Your task to perform on an android device: Is it going to rain this weekend? Image 0: 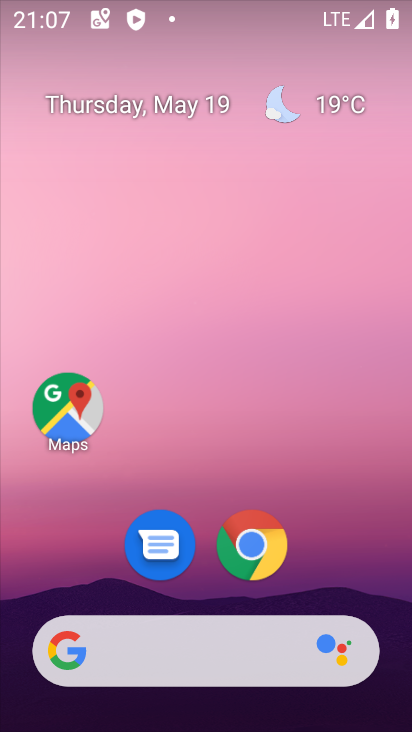
Step 0: click (225, 641)
Your task to perform on an android device: Is it going to rain this weekend? Image 1: 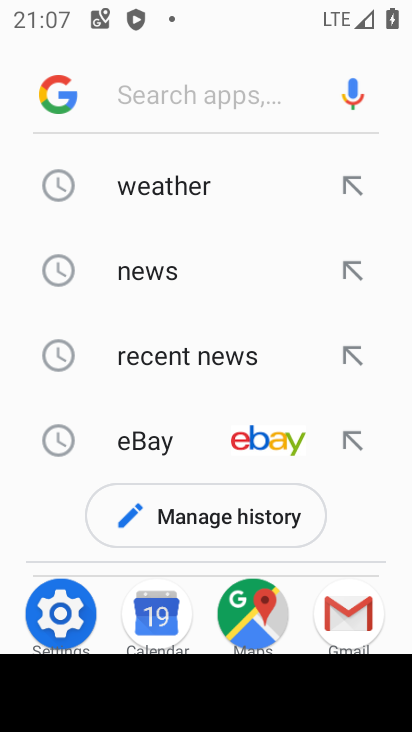
Step 1: click (199, 207)
Your task to perform on an android device: Is it going to rain this weekend? Image 2: 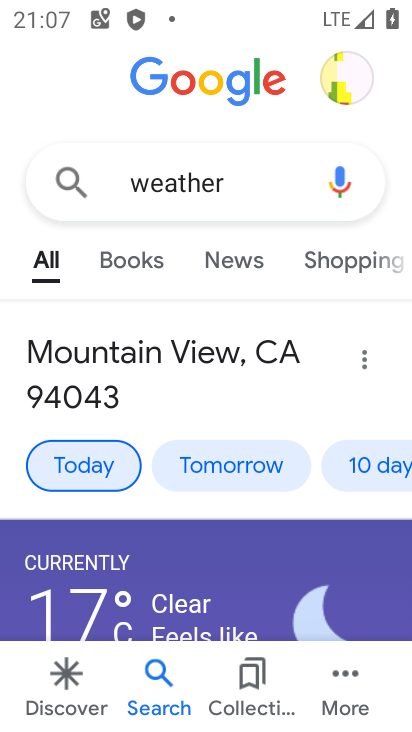
Step 2: click (374, 469)
Your task to perform on an android device: Is it going to rain this weekend? Image 3: 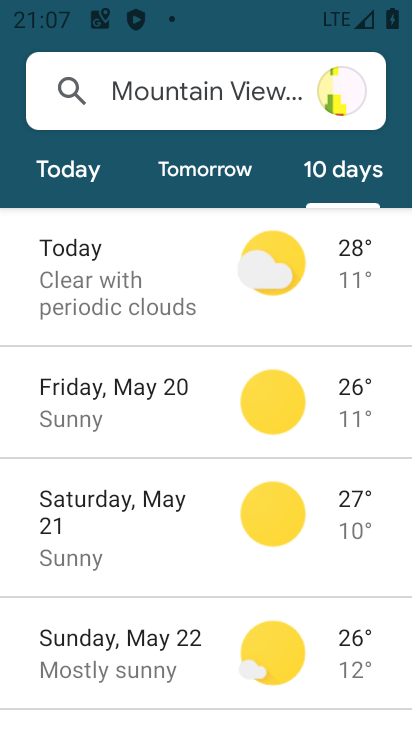
Step 3: task complete